Your task to perform on an android device: Check the weather Image 0: 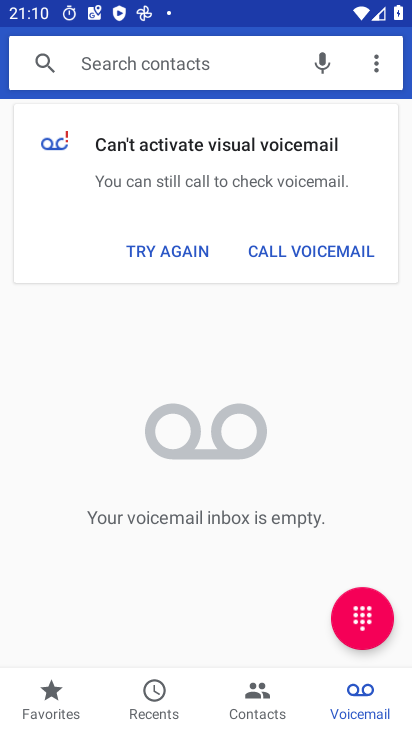
Step 0: press home button
Your task to perform on an android device: Check the weather Image 1: 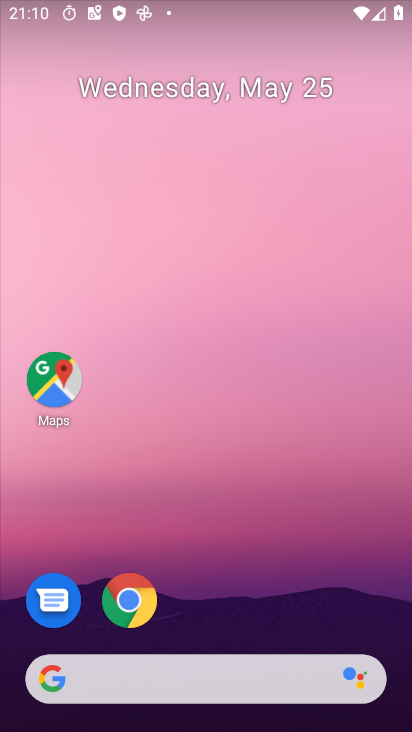
Step 1: drag from (375, 613) to (364, 183)
Your task to perform on an android device: Check the weather Image 2: 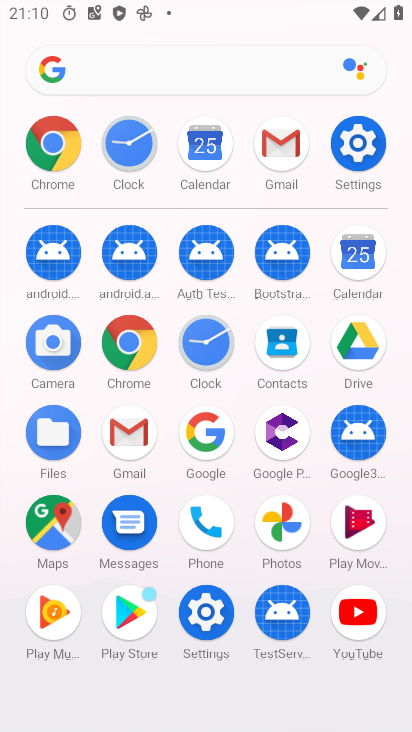
Step 2: click (128, 344)
Your task to perform on an android device: Check the weather Image 3: 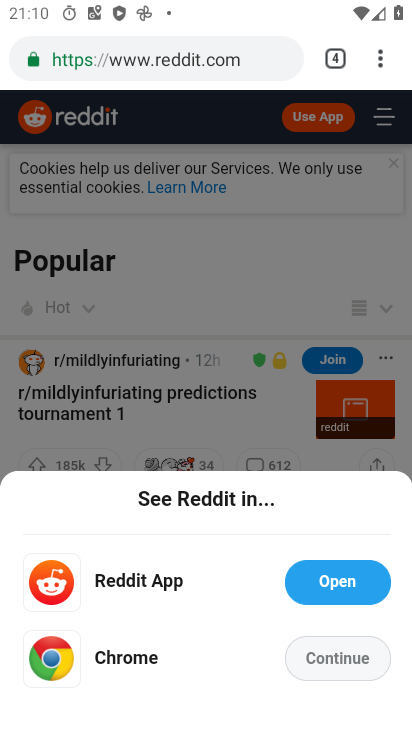
Step 3: click (243, 53)
Your task to perform on an android device: Check the weather Image 4: 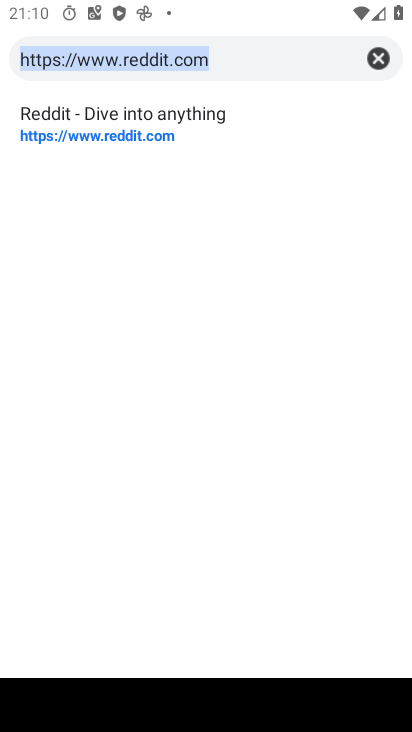
Step 4: click (370, 56)
Your task to perform on an android device: Check the weather Image 5: 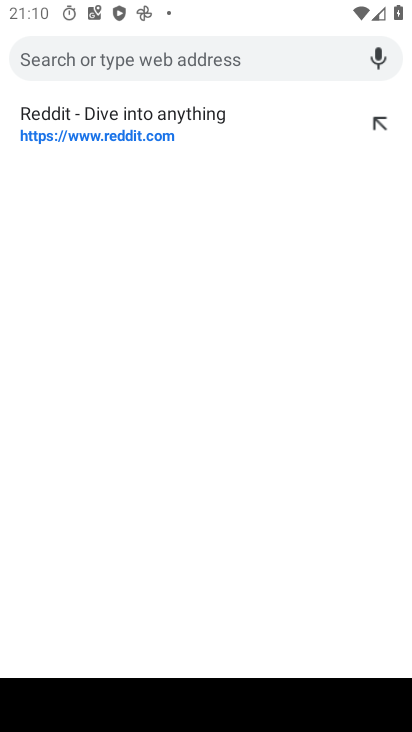
Step 5: type "check the weather"
Your task to perform on an android device: Check the weather Image 6: 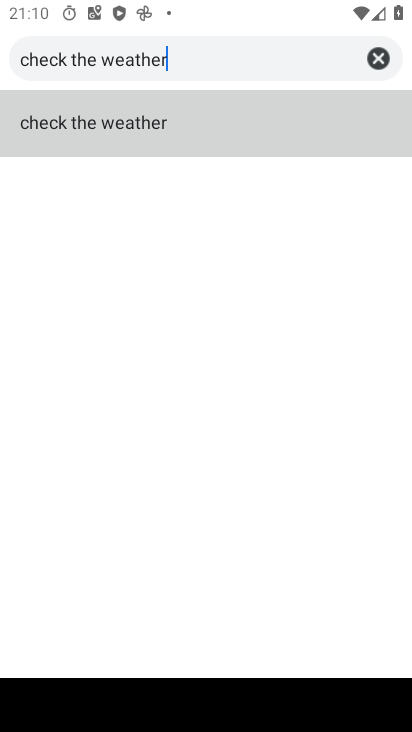
Step 6: click (157, 132)
Your task to perform on an android device: Check the weather Image 7: 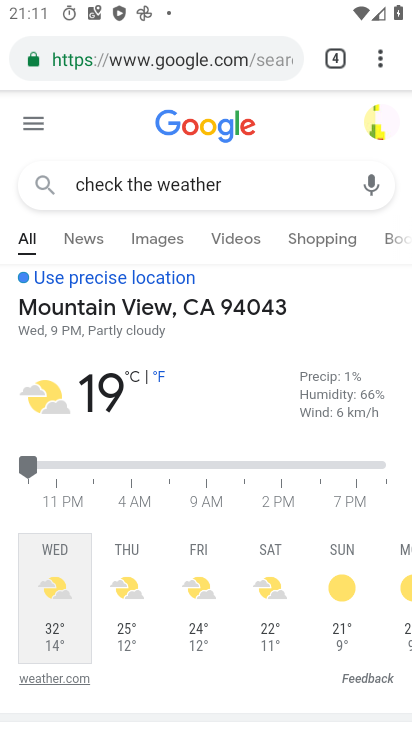
Step 7: task complete